Your task to perform on an android device: Open the map Image 0: 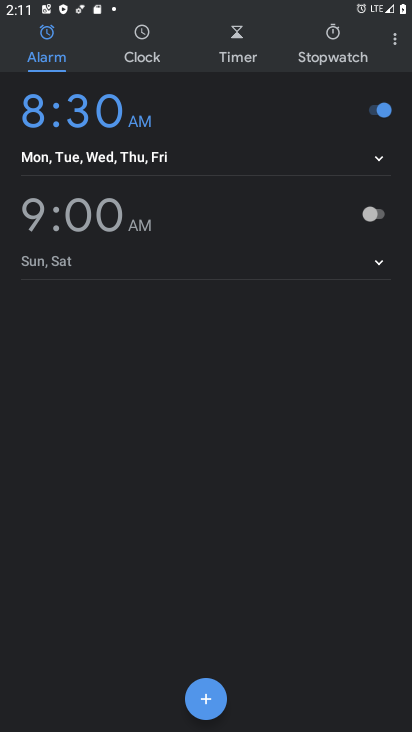
Step 0: press home button
Your task to perform on an android device: Open the map Image 1: 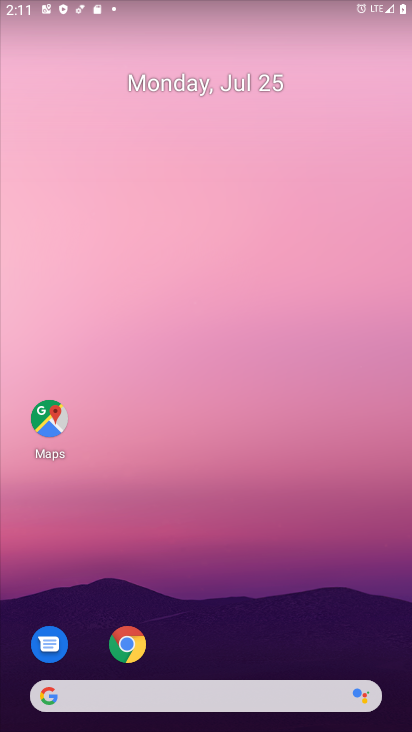
Step 1: drag from (346, 655) to (306, 23)
Your task to perform on an android device: Open the map Image 2: 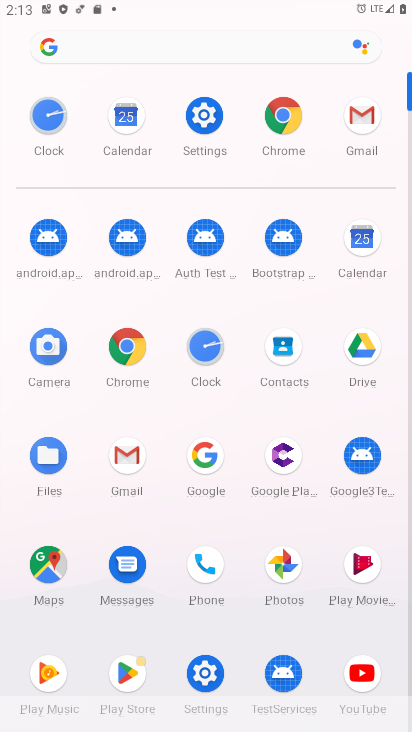
Step 2: click (57, 574)
Your task to perform on an android device: Open the map Image 3: 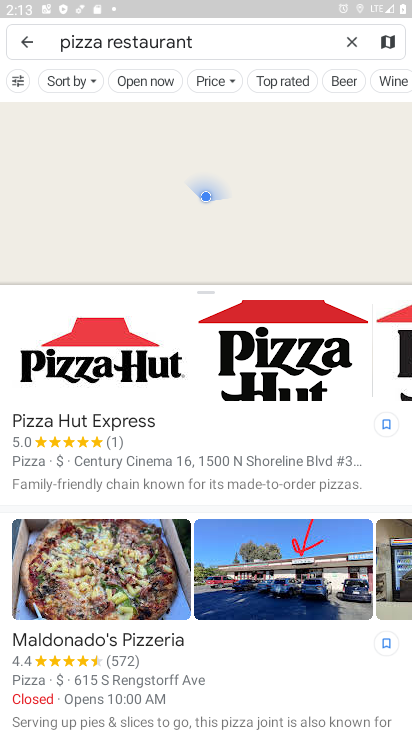
Step 3: click (349, 38)
Your task to perform on an android device: Open the map Image 4: 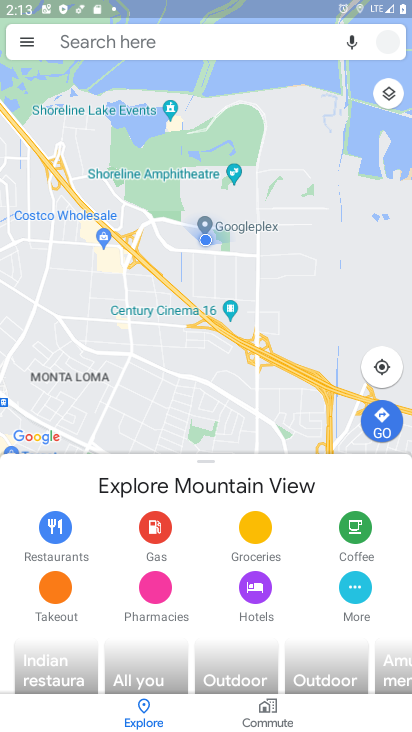
Step 4: task complete